Your task to perform on an android device: Set the phone to "Do not disturb". Image 0: 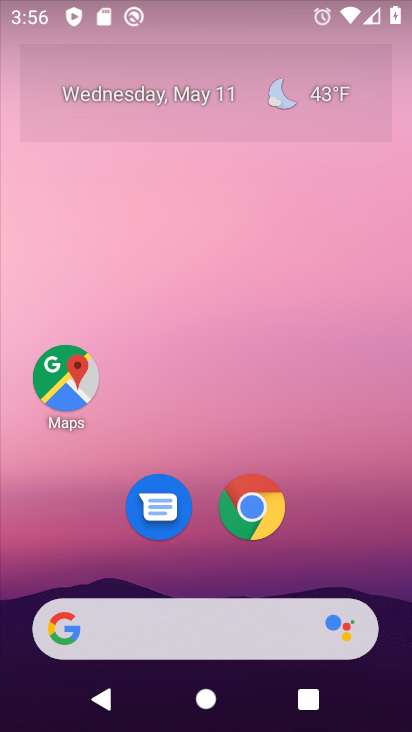
Step 0: drag from (390, 622) to (299, 46)
Your task to perform on an android device: Set the phone to "Do not disturb". Image 1: 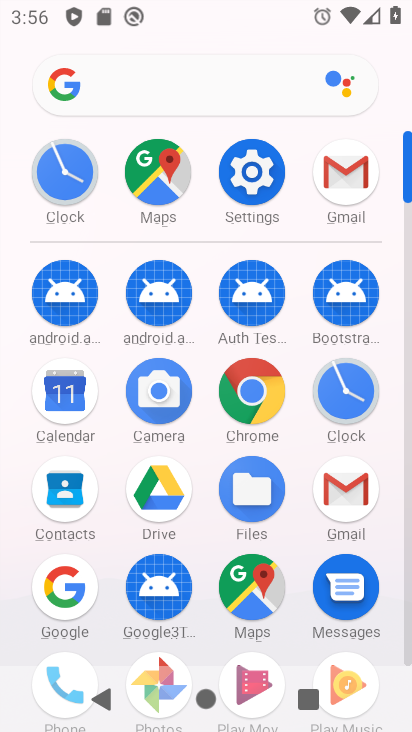
Step 1: click (408, 655)
Your task to perform on an android device: Set the phone to "Do not disturb". Image 2: 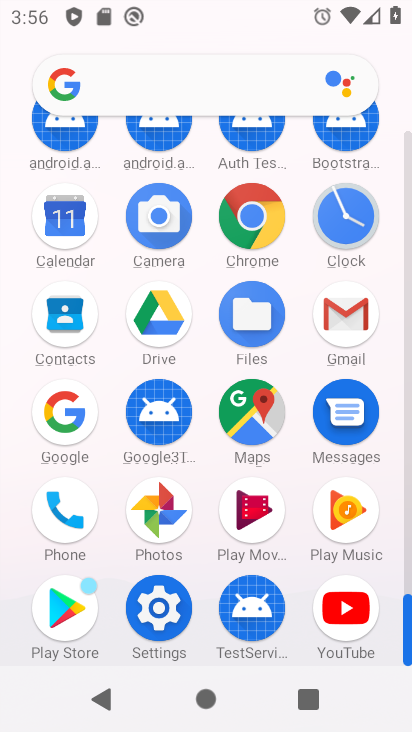
Step 2: click (157, 608)
Your task to perform on an android device: Set the phone to "Do not disturb". Image 3: 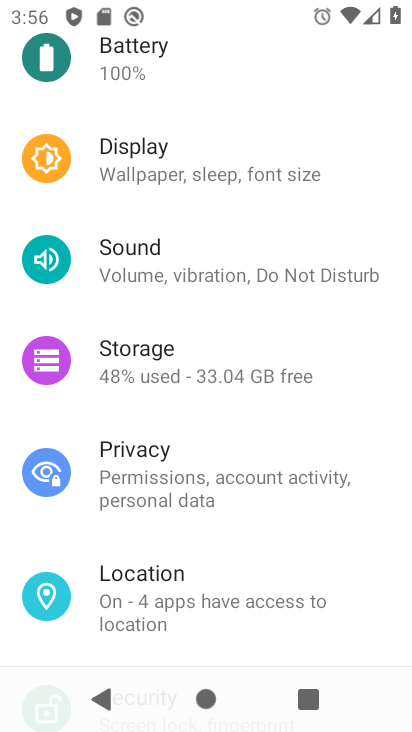
Step 3: drag from (386, 252) to (337, 560)
Your task to perform on an android device: Set the phone to "Do not disturb". Image 4: 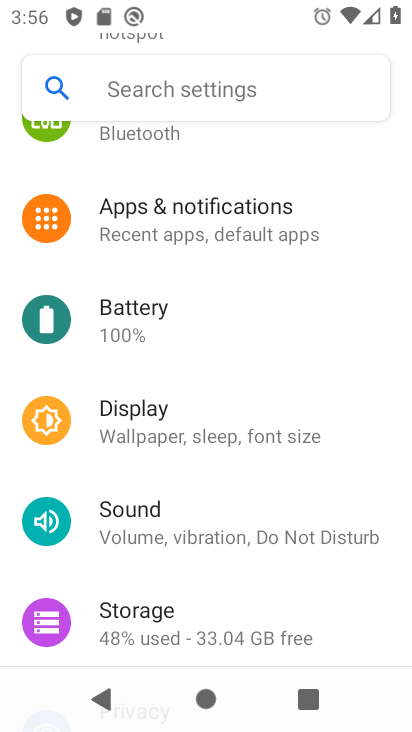
Step 4: drag from (356, 617) to (366, 464)
Your task to perform on an android device: Set the phone to "Do not disturb". Image 5: 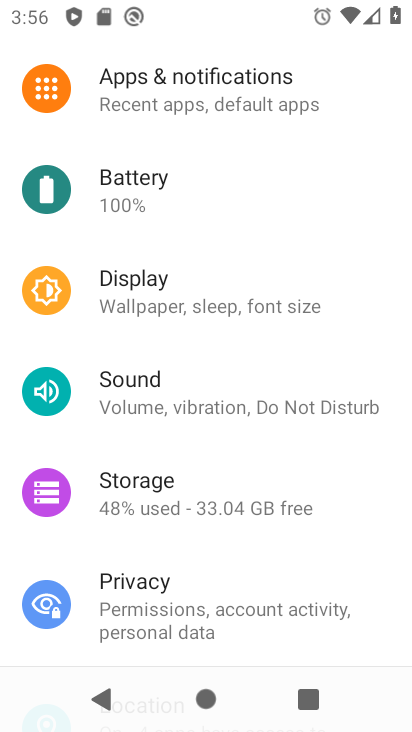
Step 5: click (156, 387)
Your task to perform on an android device: Set the phone to "Do not disturb". Image 6: 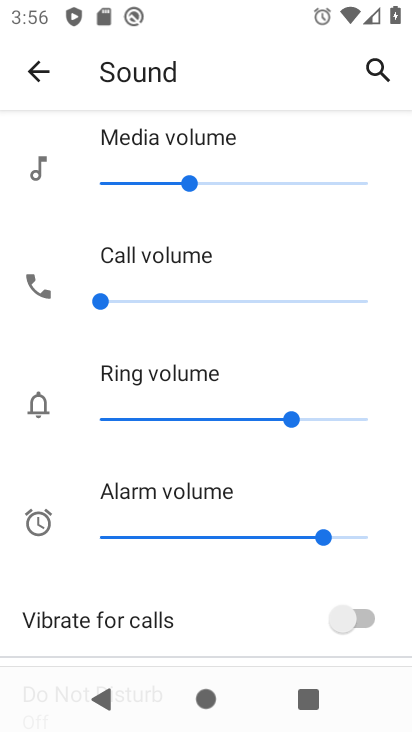
Step 6: drag from (260, 603) to (315, 259)
Your task to perform on an android device: Set the phone to "Do not disturb". Image 7: 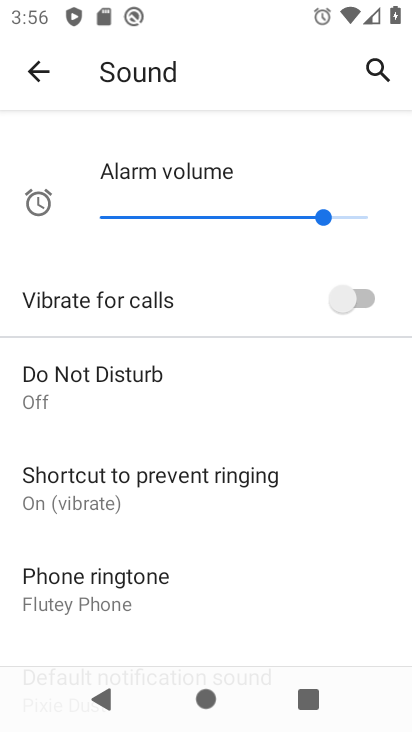
Step 7: click (40, 384)
Your task to perform on an android device: Set the phone to "Do not disturb". Image 8: 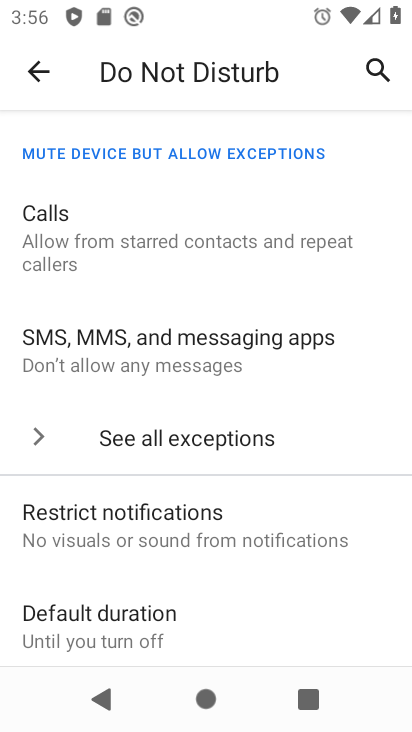
Step 8: drag from (204, 585) to (287, 149)
Your task to perform on an android device: Set the phone to "Do not disturb". Image 9: 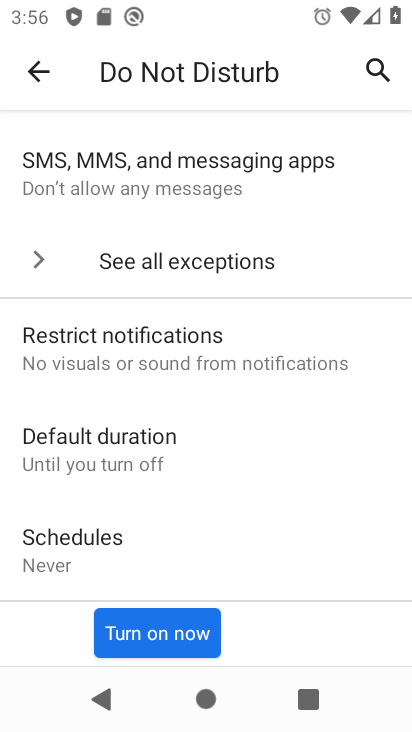
Step 9: click (151, 629)
Your task to perform on an android device: Set the phone to "Do not disturb". Image 10: 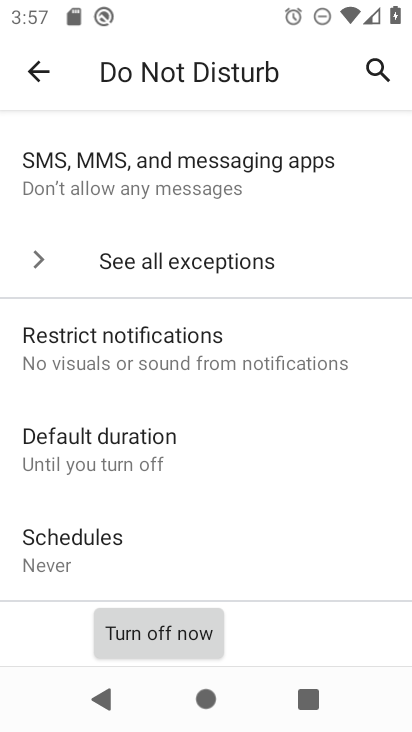
Step 10: task complete